Your task to perform on an android device: Go to Google Image 0: 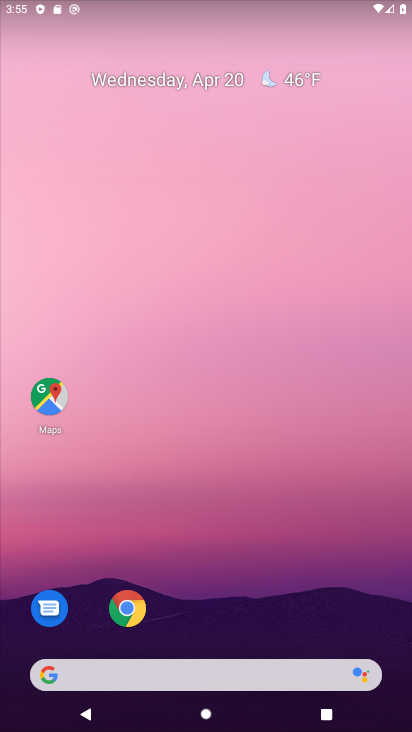
Step 0: drag from (219, 565) to (240, 149)
Your task to perform on an android device: Go to Google Image 1: 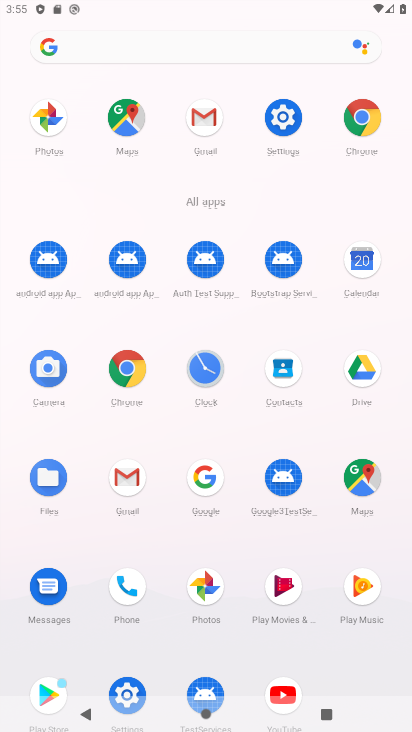
Step 1: click (352, 122)
Your task to perform on an android device: Go to Google Image 2: 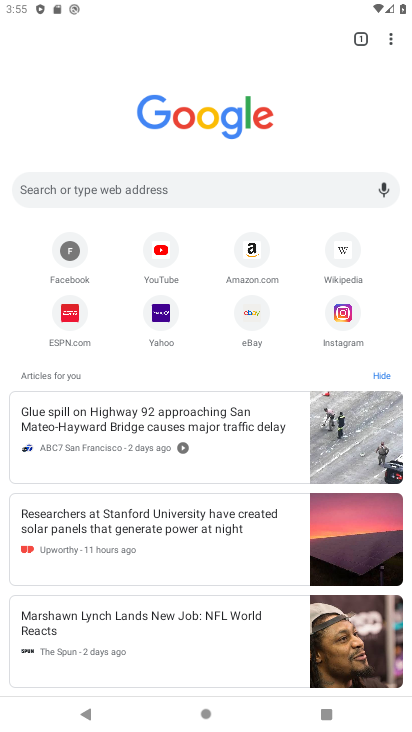
Step 2: click (222, 118)
Your task to perform on an android device: Go to Google Image 3: 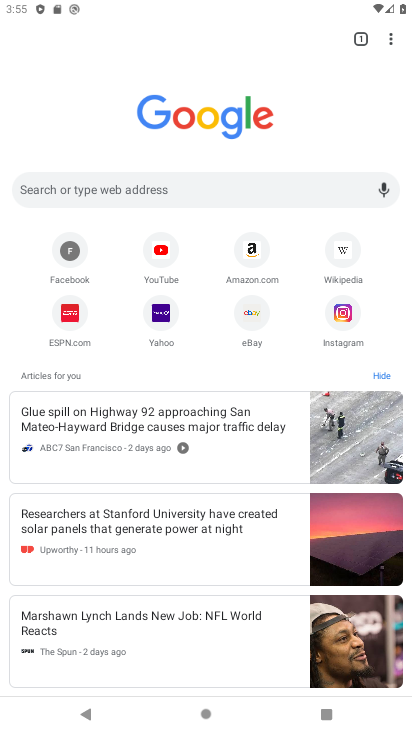
Step 3: click (222, 118)
Your task to perform on an android device: Go to Google Image 4: 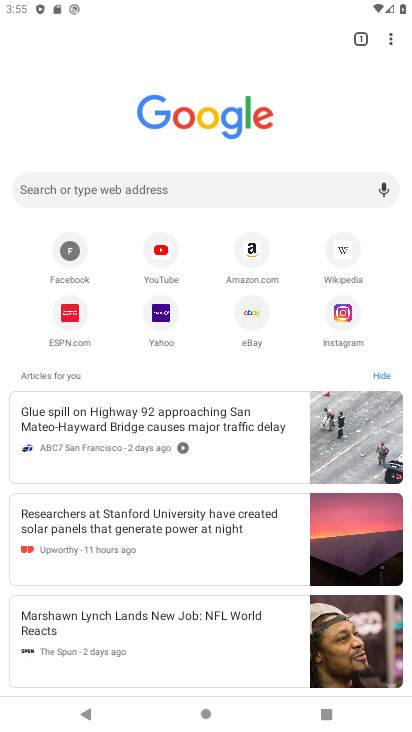
Step 4: click (155, 187)
Your task to perform on an android device: Go to Google Image 5: 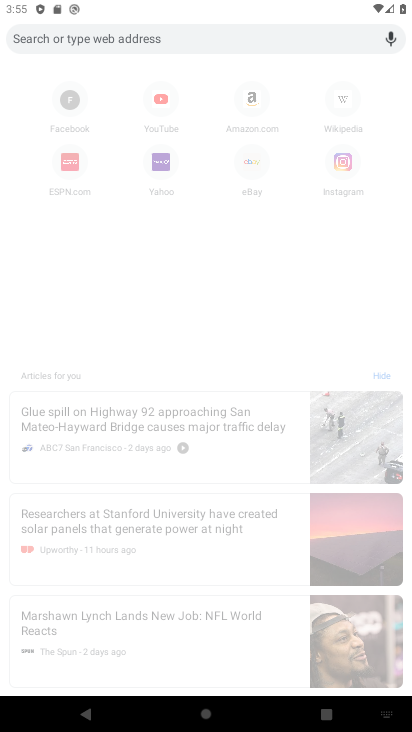
Step 5: click (387, 712)
Your task to perform on an android device: Go to Google Image 6: 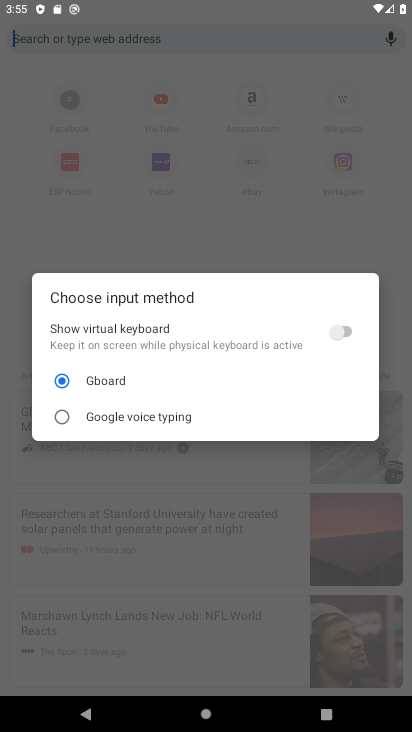
Step 6: click (343, 320)
Your task to perform on an android device: Go to Google Image 7: 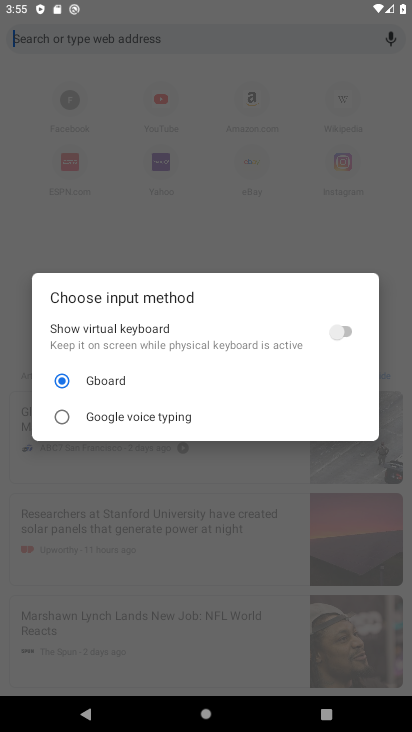
Step 7: click (346, 332)
Your task to perform on an android device: Go to Google Image 8: 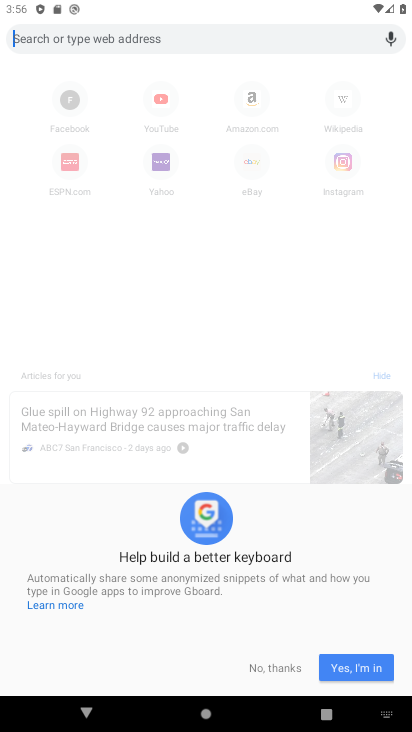
Step 8: click (258, 669)
Your task to perform on an android device: Go to Google Image 9: 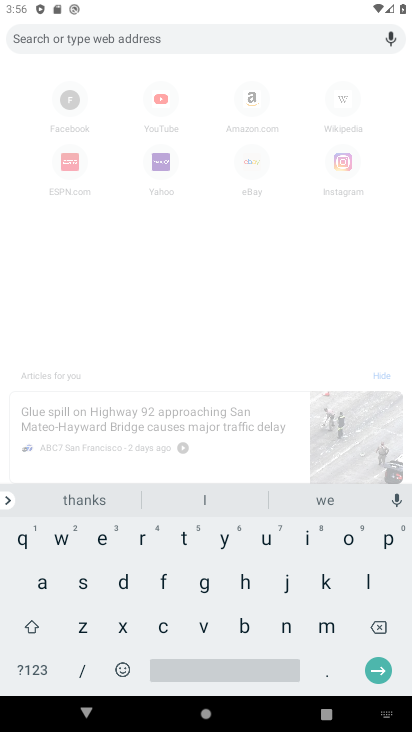
Step 9: click (203, 585)
Your task to perform on an android device: Go to Google Image 10: 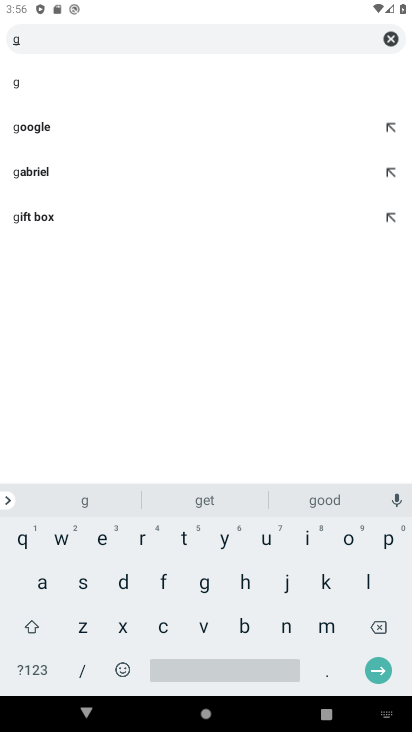
Step 10: click (42, 127)
Your task to perform on an android device: Go to Google Image 11: 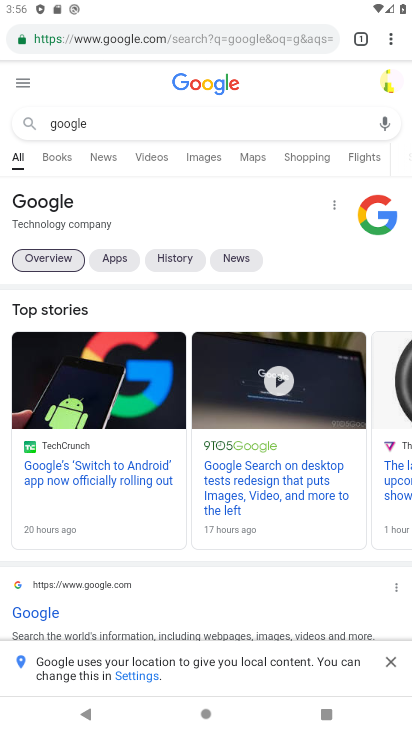
Step 11: click (48, 605)
Your task to perform on an android device: Go to Google Image 12: 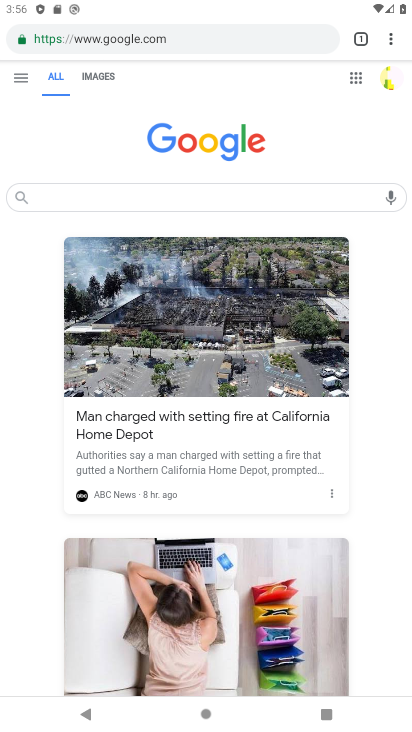
Step 12: task complete